Your task to perform on an android device: What is the news today? Image 0: 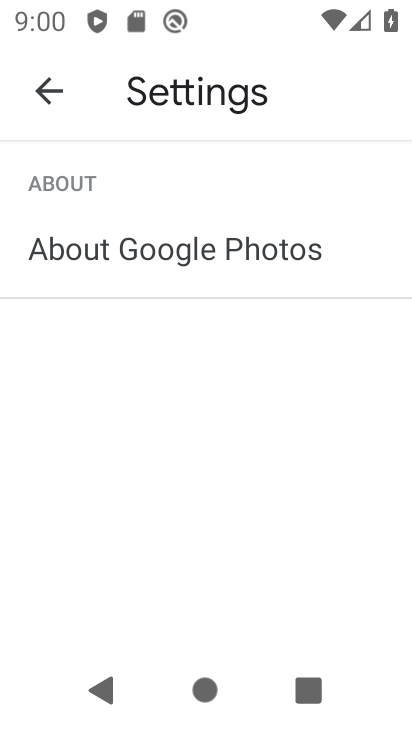
Step 0: press home button
Your task to perform on an android device: What is the news today? Image 1: 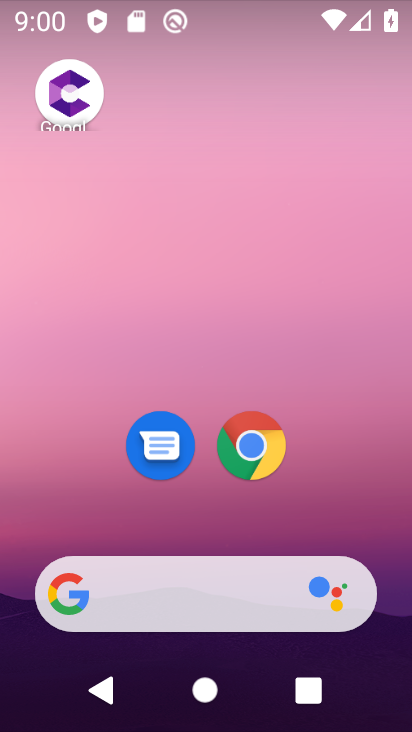
Step 1: click (224, 615)
Your task to perform on an android device: What is the news today? Image 2: 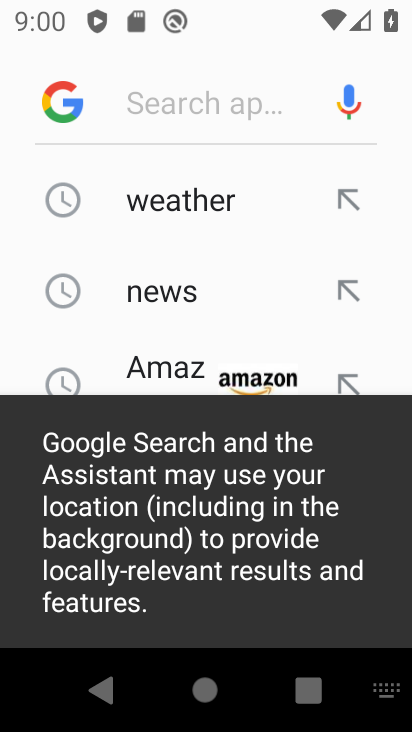
Step 2: click (176, 286)
Your task to perform on an android device: What is the news today? Image 3: 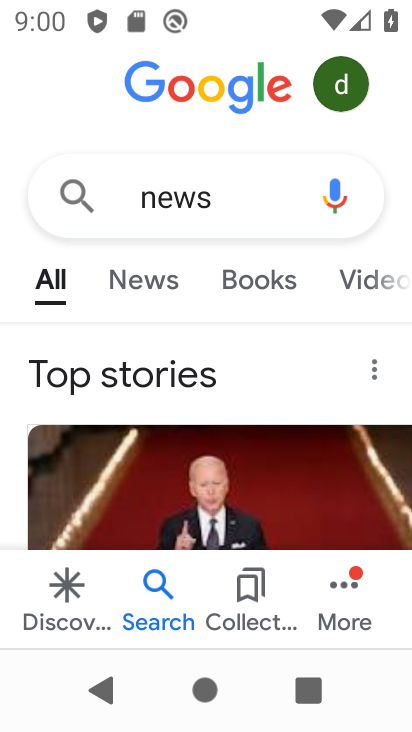
Step 3: task complete